Your task to perform on an android device: open app "NewsBreak: Local News & Alerts" Image 0: 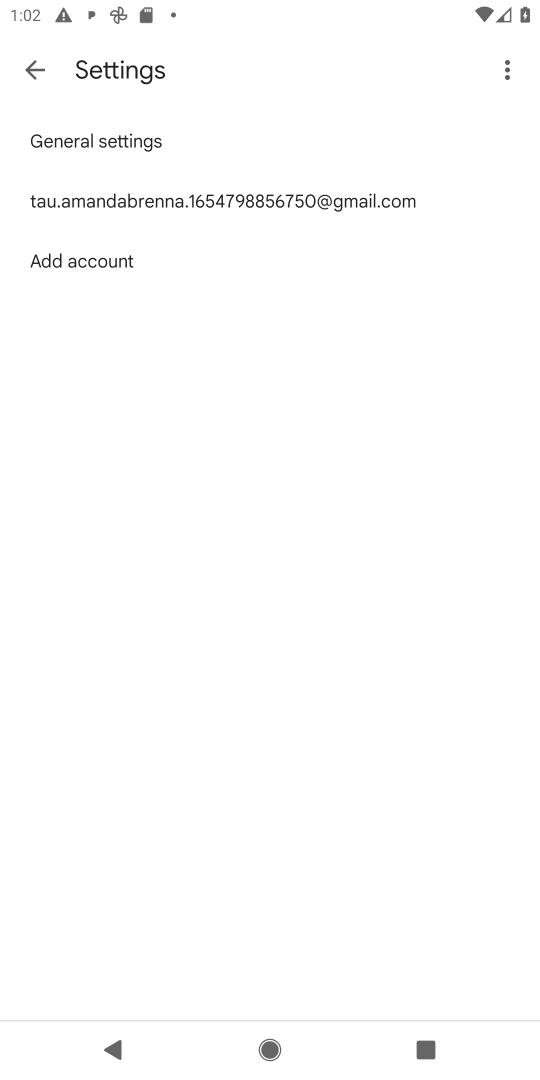
Step 0: press home button
Your task to perform on an android device: open app "NewsBreak: Local News & Alerts" Image 1: 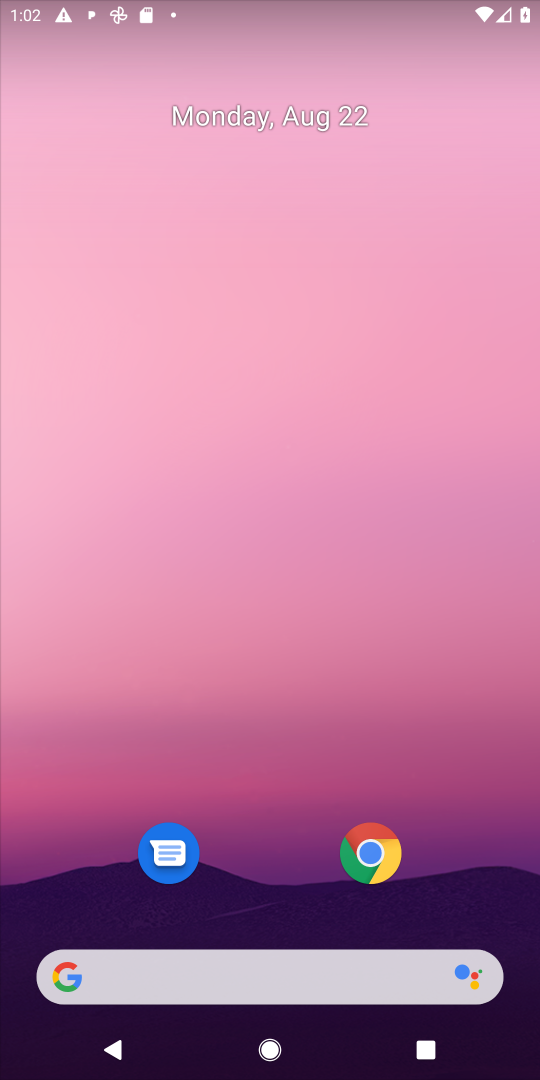
Step 1: drag from (250, 810) to (280, 522)
Your task to perform on an android device: open app "NewsBreak: Local News & Alerts" Image 2: 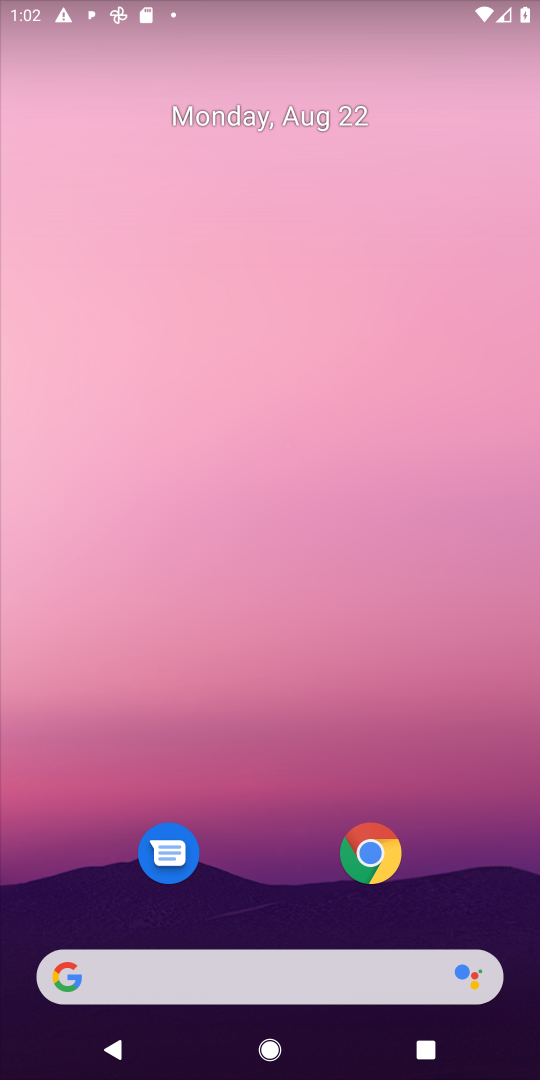
Step 2: drag from (233, 851) to (232, 225)
Your task to perform on an android device: open app "NewsBreak: Local News & Alerts" Image 3: 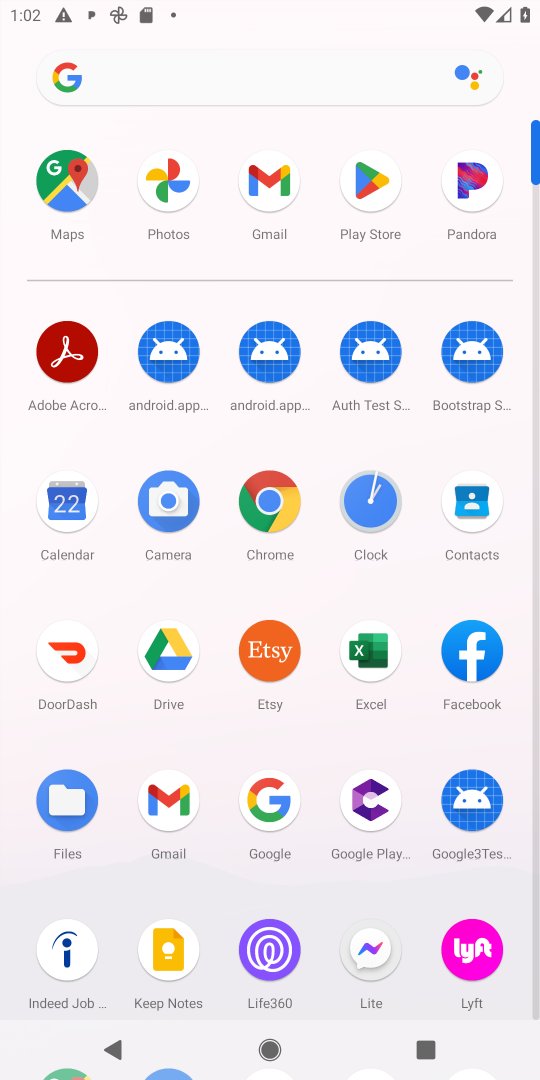
Step 3: click (367, 174)
Your task to perform on an android device: open app "NewsBreak: Local News & Alerts" Image 4: 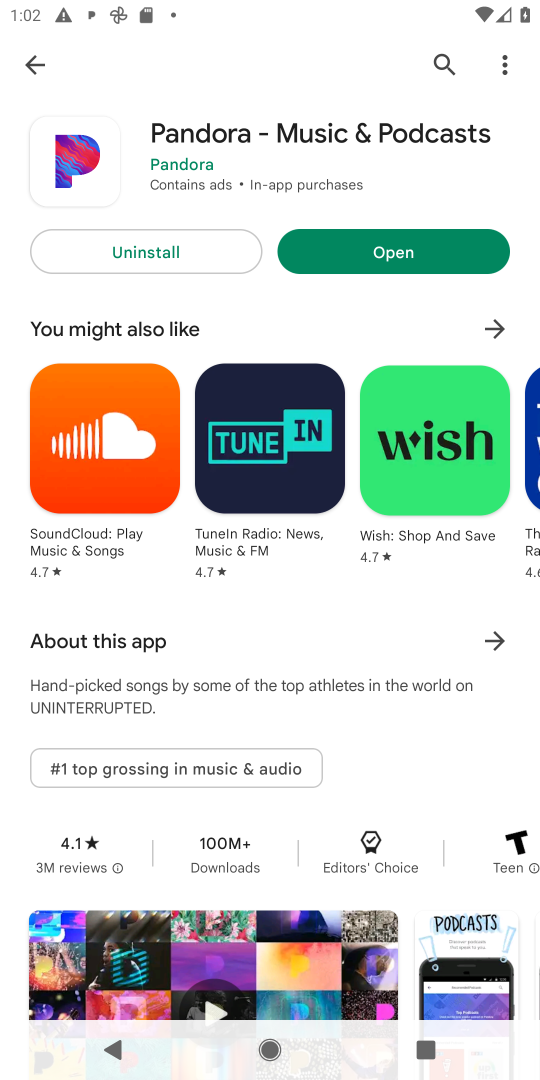
Step 4: click (37, 57)
Your task to perform on an android device: open app "NewsBreak: Local News & Alerts" Image 5: 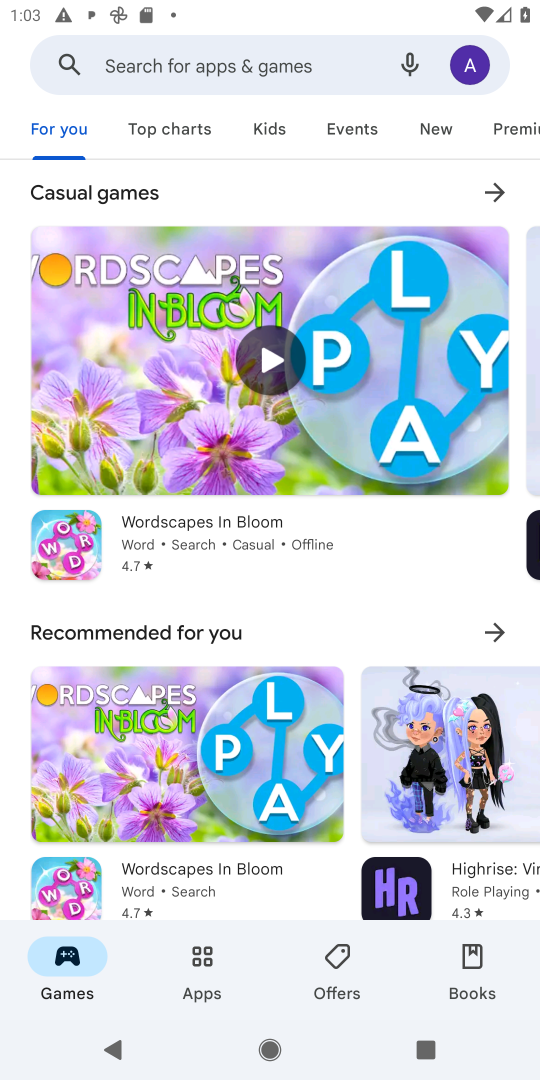
Step 5: click (245, 27)
Your task to perform on an android device: open app "NewsBreak: Local News & Alerts" Image 6: 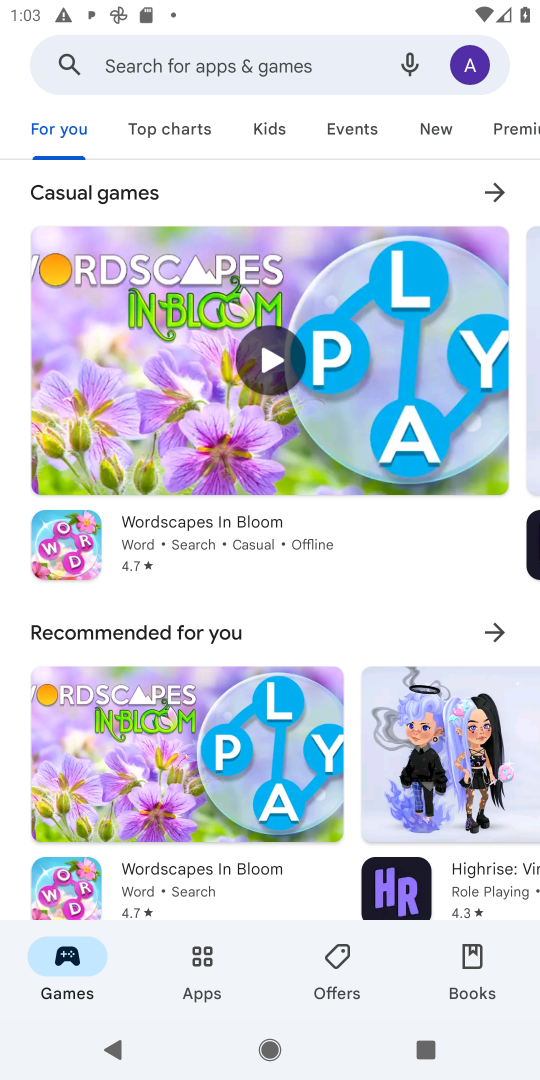
Step 6: click (245, 38)
Your task to perform on an android device: open app "NewsBreak: Local News & Alerts" Image 7: 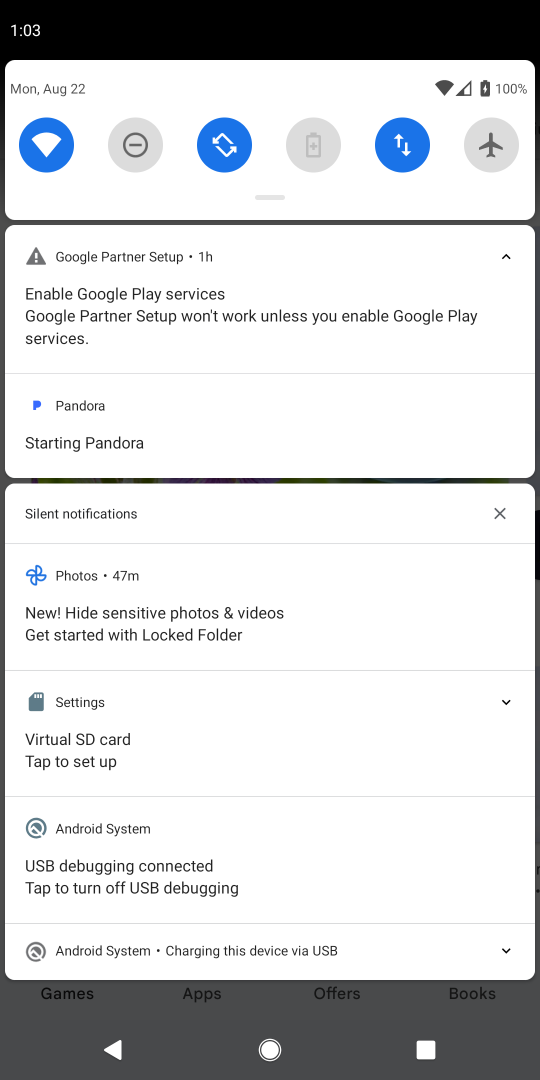
Step 7: type "NewsBreak: Local News & Alerts "
Your task to perform on an android device: open app "NewsBreak: Local News & Alerts" Image 8: 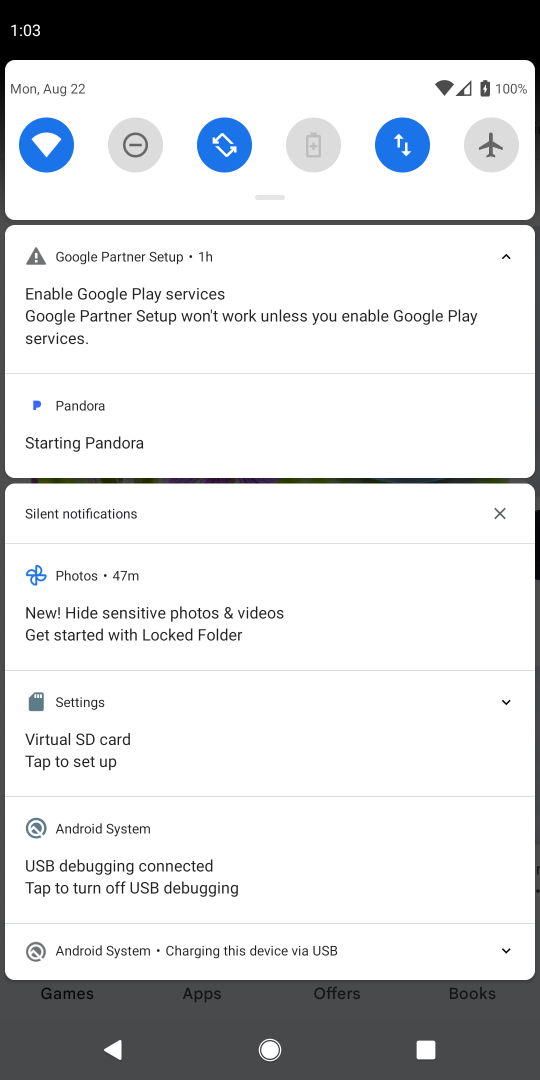
Step 8: click (320, 992)
Your task to perform on an android device: open app "NewsBreak: Local News & Alerts" Image 9: 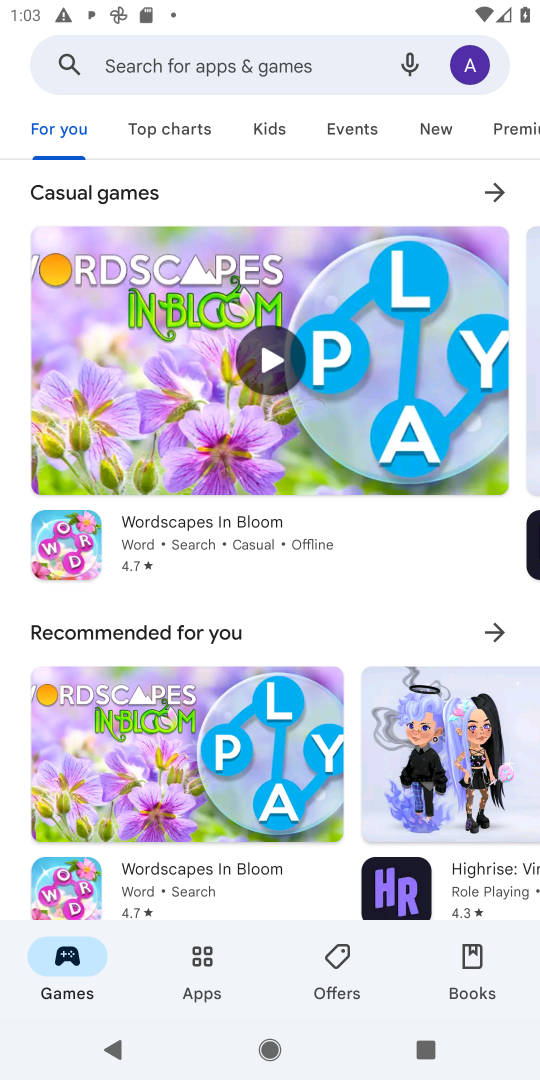
Step 9: click (250, 56)
Your task to perform on an android device: open app "NewsBreak: Local News & Alerts" Image 10: 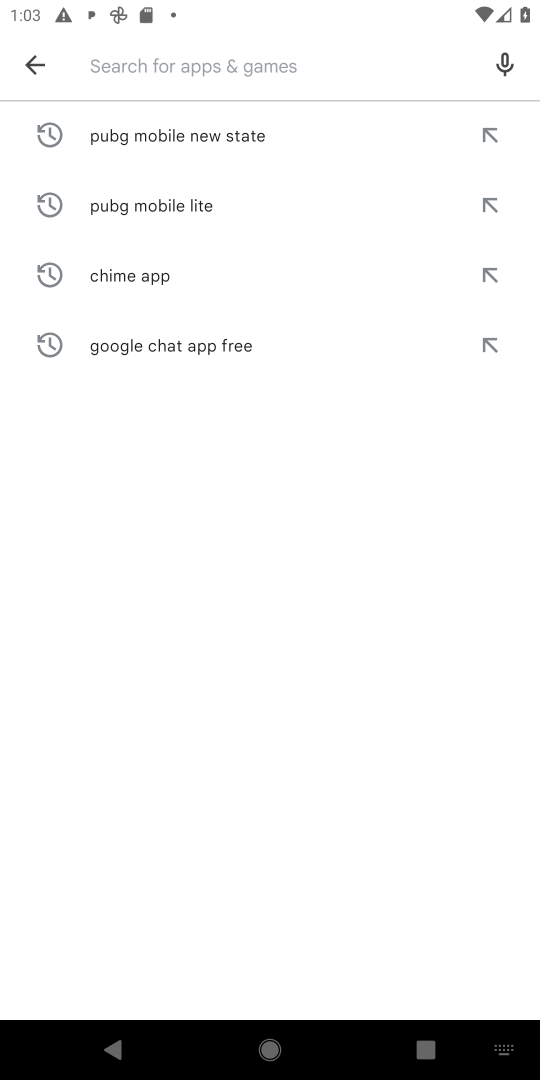
Step 10: type "NewsBreak: Local News & Alerts "
Your task to perform on an android device: open app "NewsBreak: Local News & Alerts" Image 11: 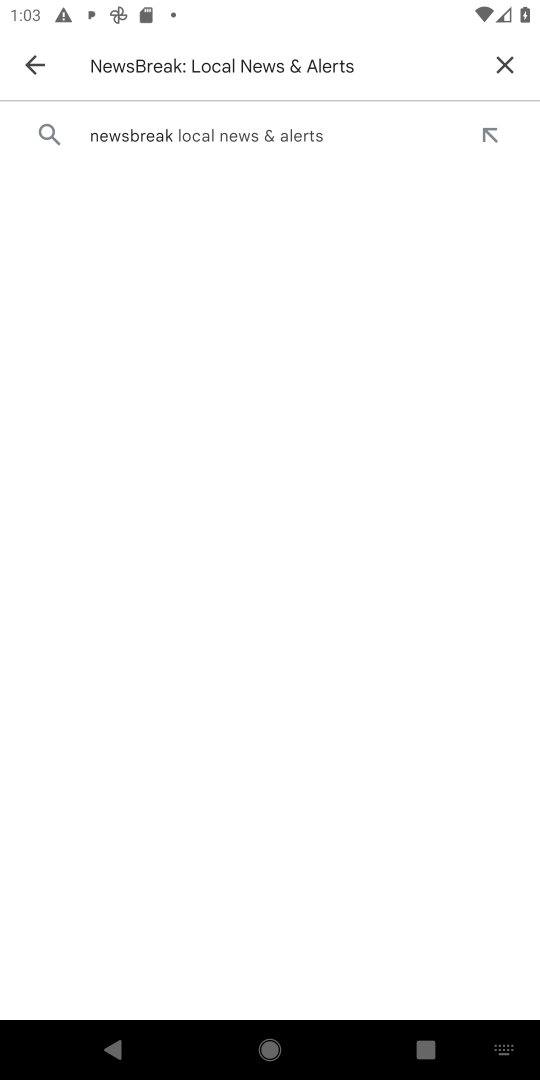
Step 11: click (230, 138)
Your task to perform on an android device: open app "NewsBreak: Local News & Alerts" Image 12: 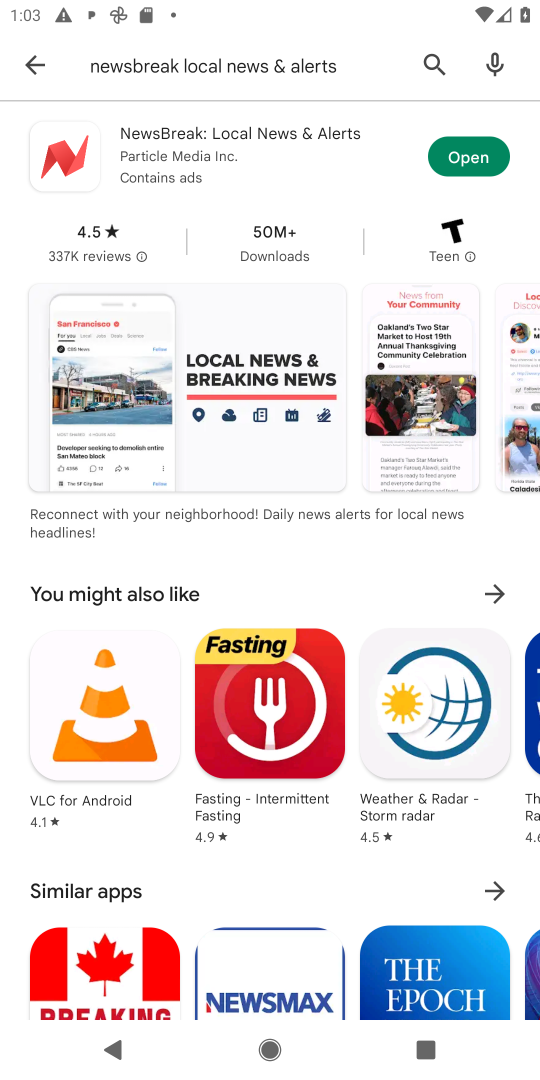
Step 12: click (468, 141)
Your task to perform on an android device: open app "NewsBreak: Local News & Alerts" Image 13: 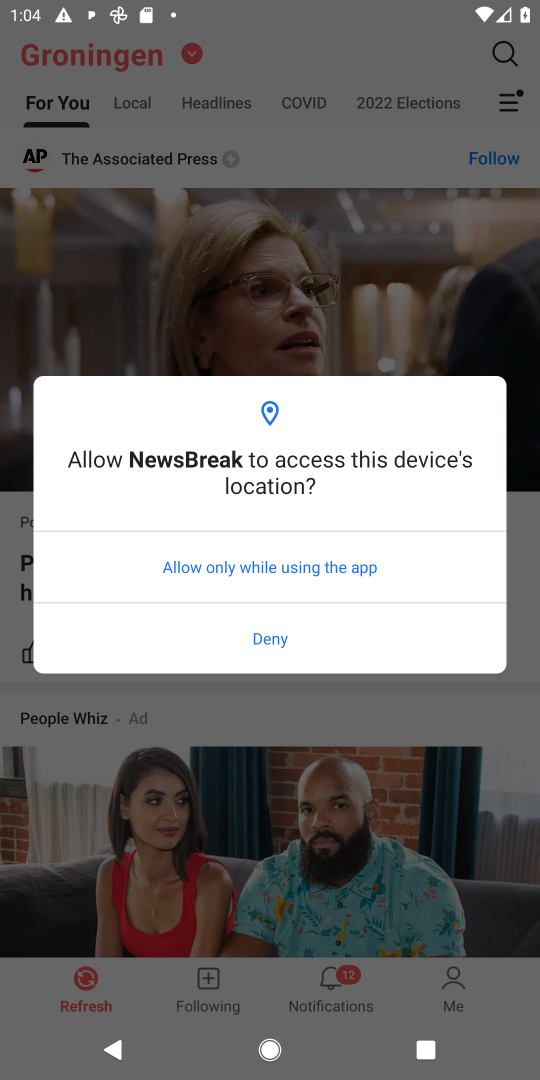
Step 13: task complete